Your task to perform on an android device: set the timer Image 0: 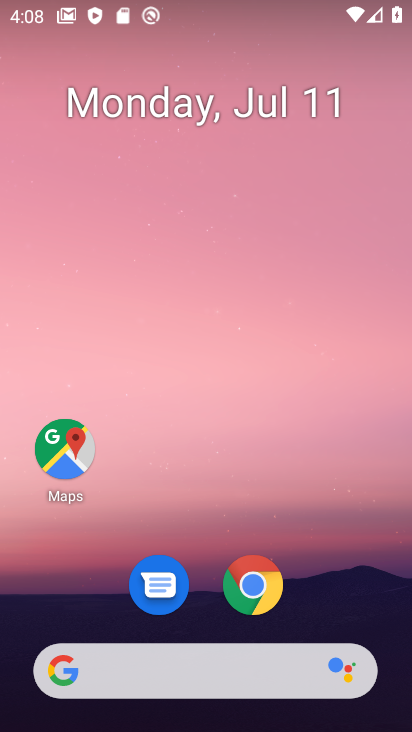
Step 0: drag from (336, 563) to (320, 51)
Your task to perform on an android device: set the timer Image 1: 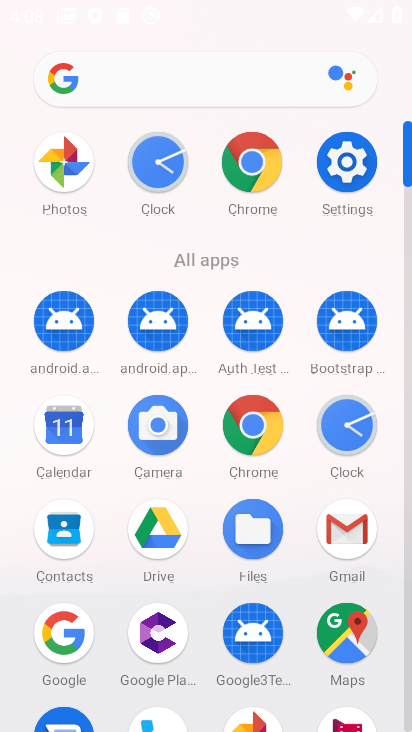
Step 1: click (349, 424)
Your task to perform on an android device: set the timer Image 2: 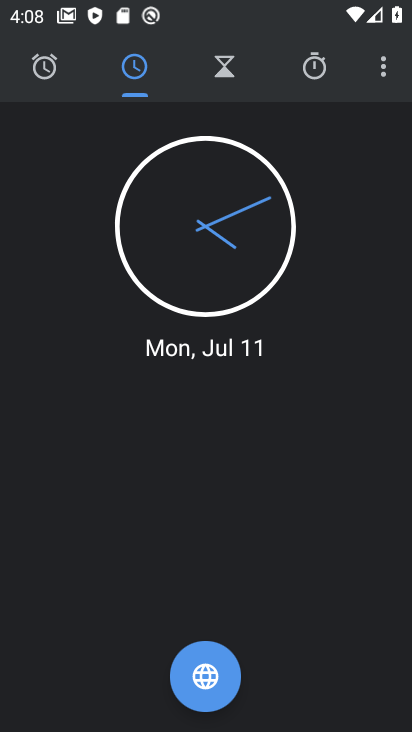
Step 2: click (224, 60)
Your task to perform on an android device: set the timer Image 3: 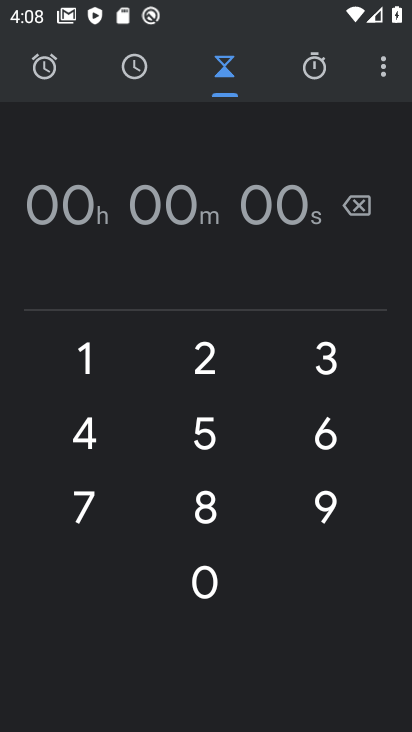
Step 3: click (78, 351)
Your task to perform on an android device: set the timer Image 4: 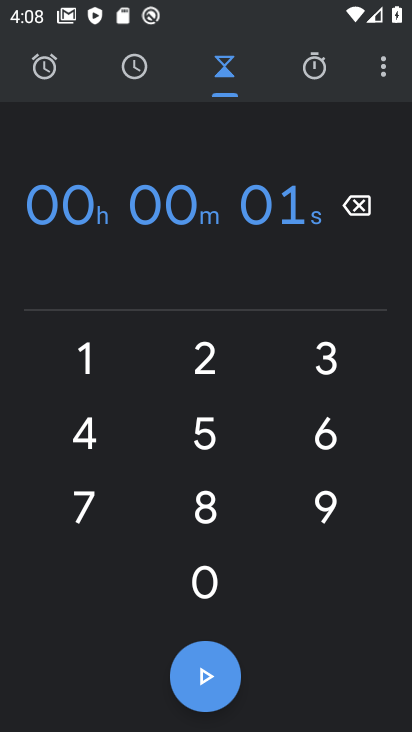
Step 4: task complete